Your task to perform on an android device: turn smart compose on in the gmail app Image 0: 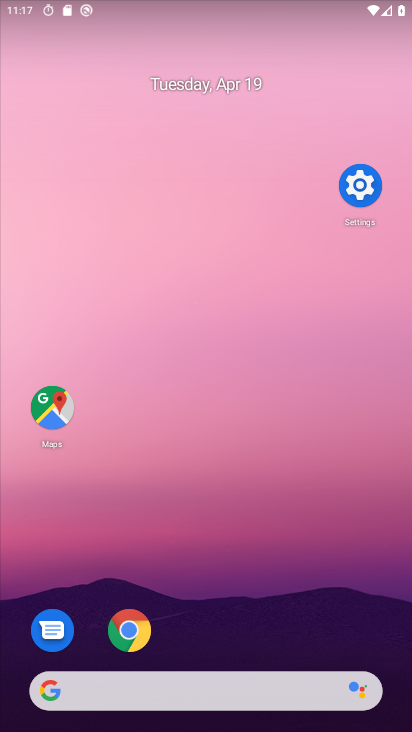
Step 0: drag from (119, 700) to (157, 96)
Your task to perform on an android device: turn smart compose on in the gmail app Image 1: 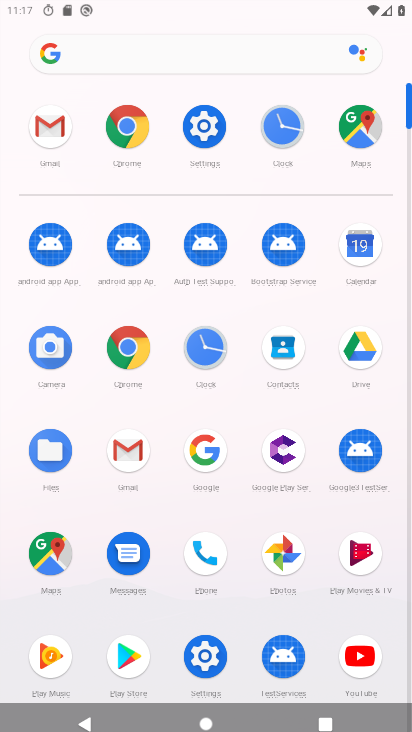
Step 1: click (136, 465)
Your task to perform on an android device: turn smart compose on in the gmail app Image 2: 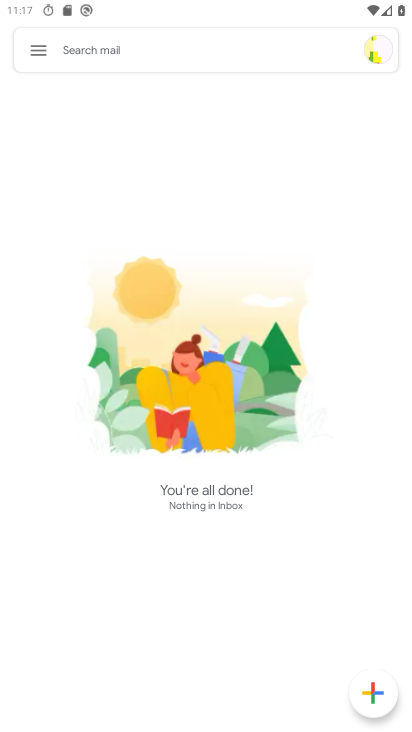
Step 2: click (41, 47)
Your task to perform on an android device: turn smart compose on in the gmail app Image 3: 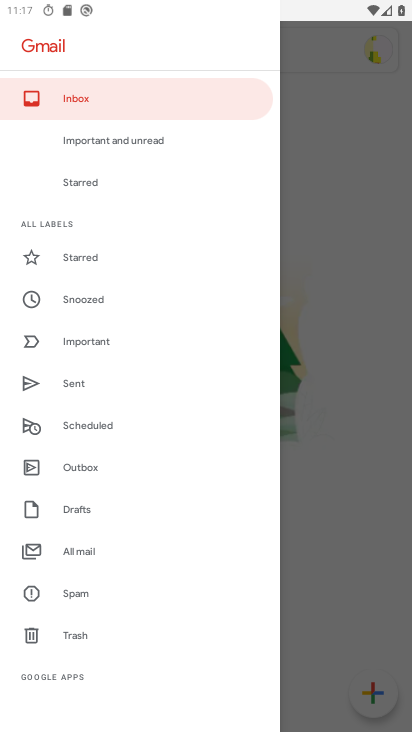
Step 3: drag from (109, 589) to (132, 174)
Your task to perform on an android device: turn smart compose on in the gmail app Image 4: 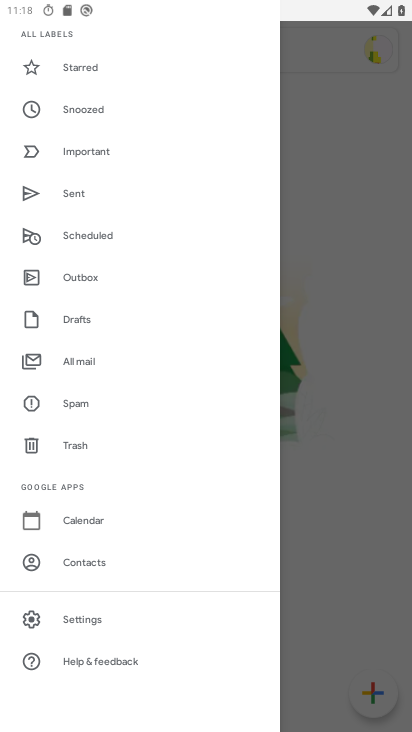
Step 4: click (100, 620)
Your task to perform on an android device: turn smart compose on in the gmail app Image 5: 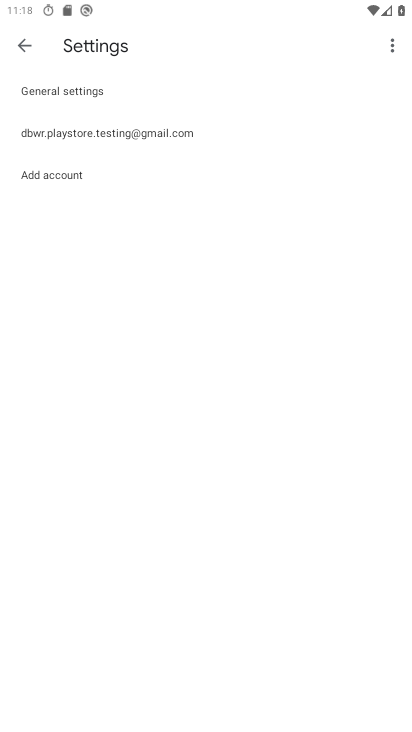
Step 5: click (243, 128)
Your task to perform on an android device: turn smart compose on in the gmail app Image 6: 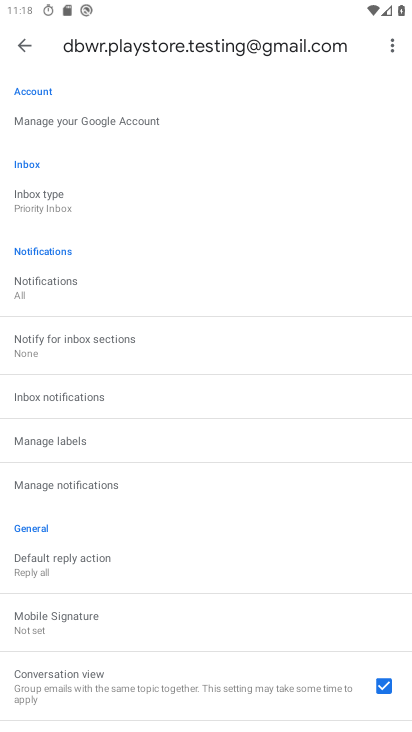
Step 6: task complete